Your task to perform on an android device: Show me the alarms in the clock app Image 0: 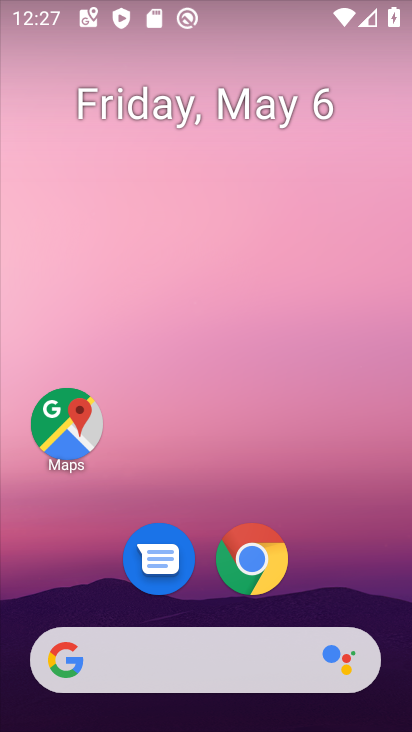
Step 0: drag from (329, 608) to (348, 88)
Your task to perform on an android device: Show me the alarms in the clock app Image 1: 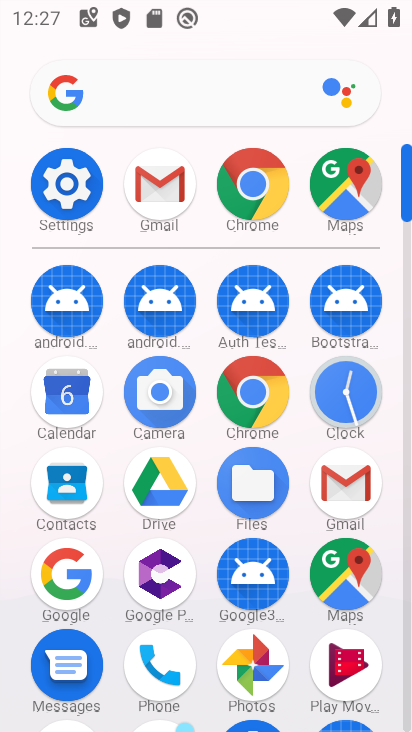
Step 1: click (358, 389)
Your task to perform on an android device: Show me the alarms in the clock app Image 2: 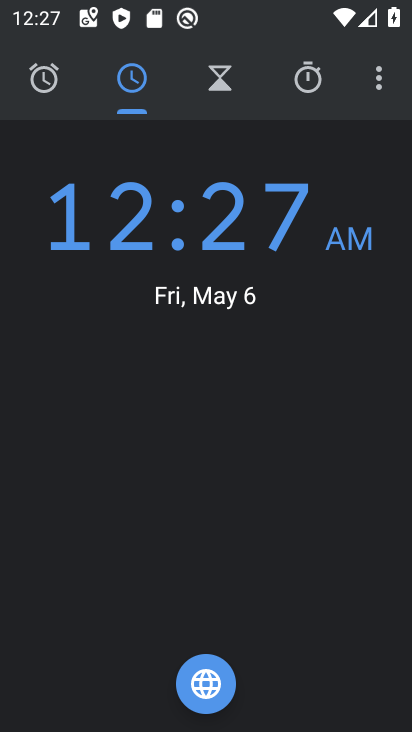
Step 2: click (53, 92)
Your task to perform on an android device: Show me the alarms in the clock app Image 3: 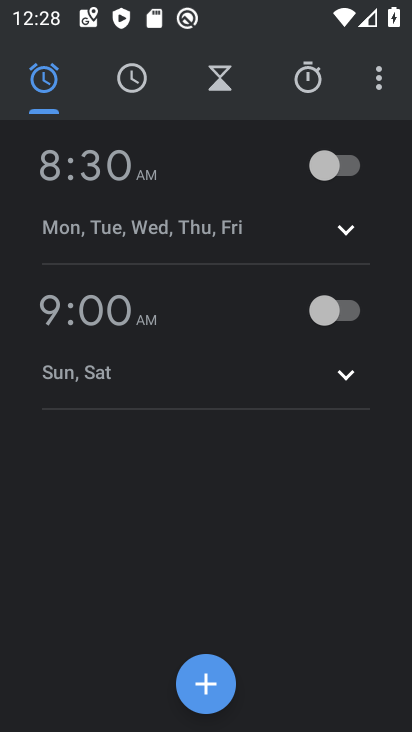
Step 3: task complete